Your task to perform on an android device: toggle location history Image 0: 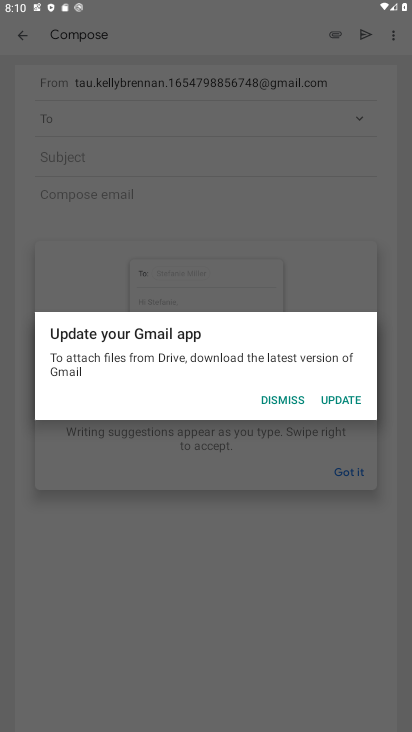
Step 0: press home button
Your task to perform on an android device: toggle location history Image 1: 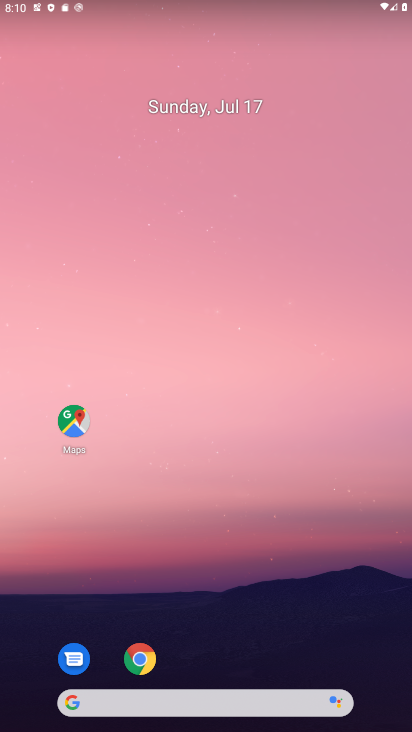
Step 1: drag from (190, 656) to (178, 255)
Your task to perform on an android device: toggle location history Image 2: 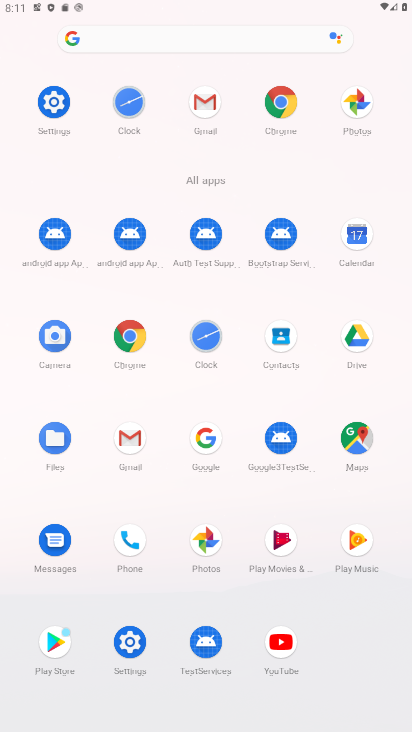
Step 2: click (54, 107)
Your task to perform on an android device: toggle location history Image 3: 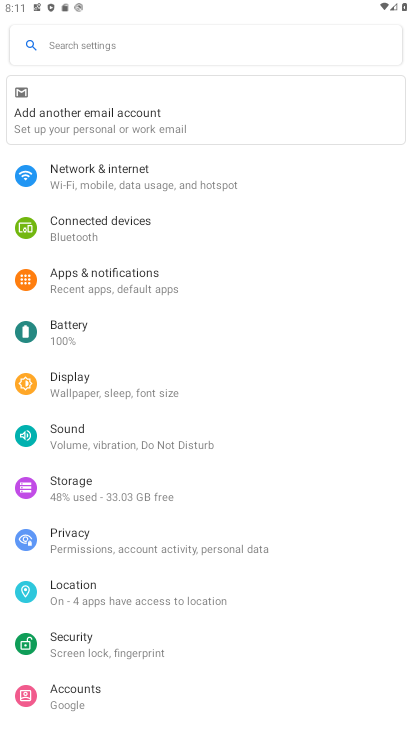
Step 3: click (130, 586)
Your task to perform on an android device: toggle location history Image 4: 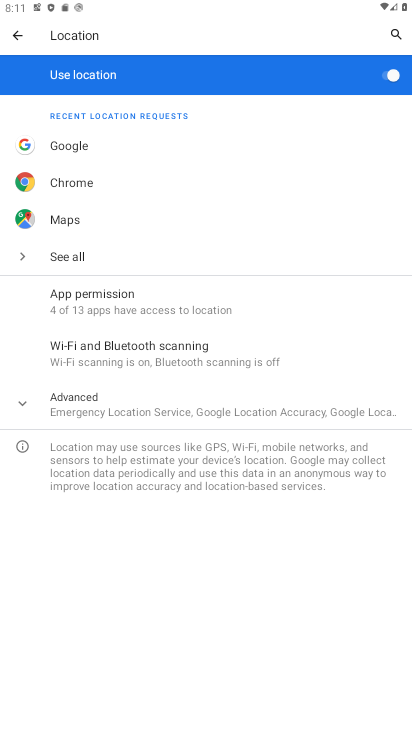
Step 4: click (146, 403)
Your task to perform on an android device: toggle location history Image 5: 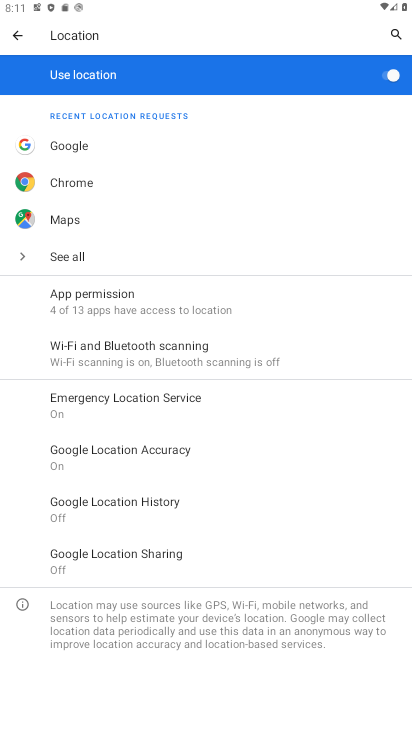
Step 5: click (144, 505)
Your task to perform on an android device: toggle location history Image 6: 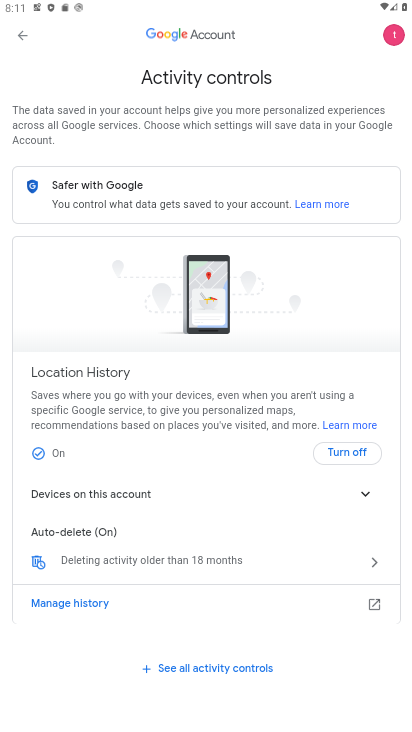
Step 6: click (335, 454)
Your task to perform on an android device: toggle location history Image 7: 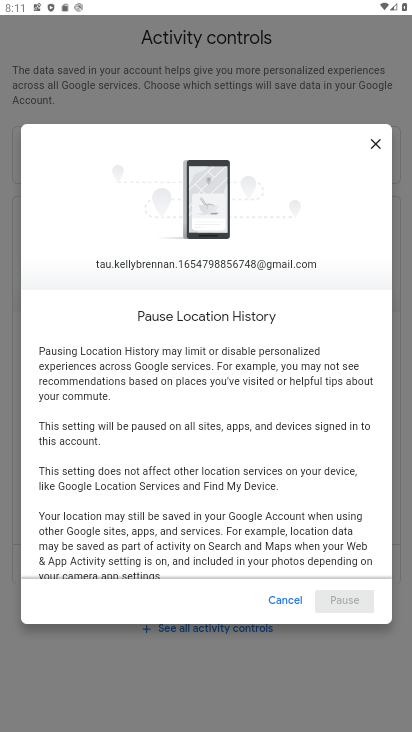
Step 7: drag from (302, 520) to (300, 421)
Your task to perform on an android device: toggle location history Image 8: 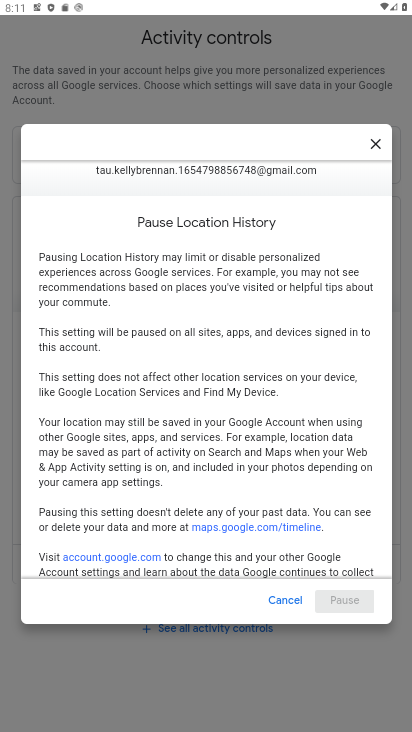
Step 8: drag from (256, 552) to (262, 243)
Your task to perform on an android device: toggle location history Image 9: 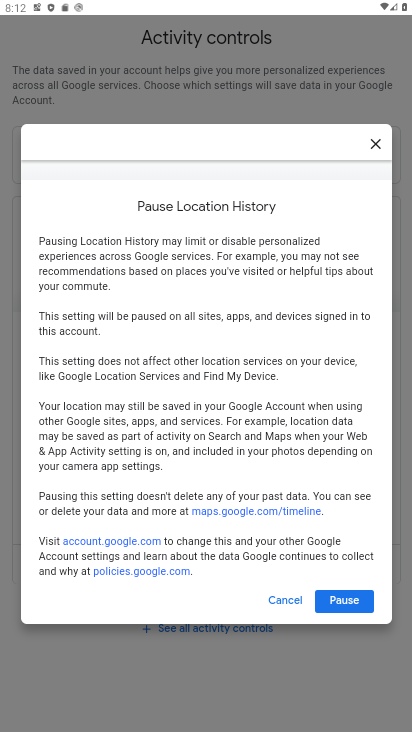
Step 9: click (337, 596)
Your task to perform on an android device: toggle location history Image 10: 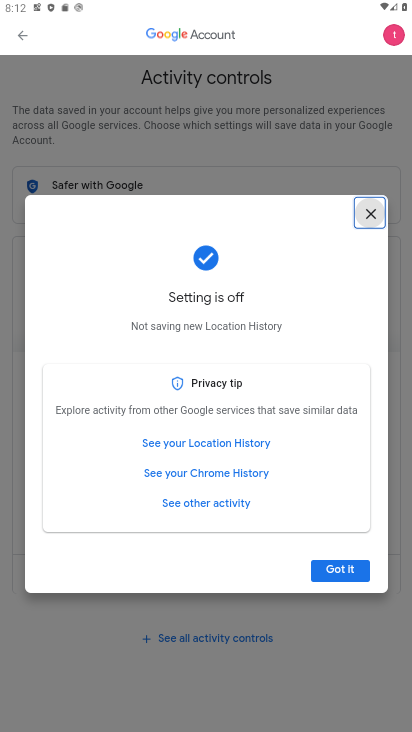
Step 10: task complete